Your task to perform on an android device: What's the weather going to be this weekend? Image 0: 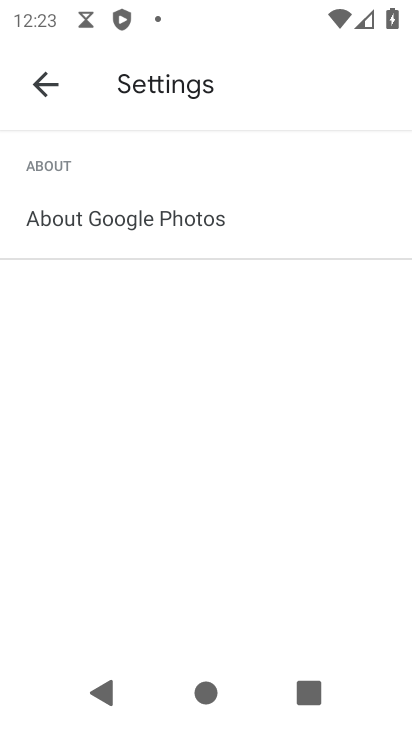
Step 0: press home button
Your task to perform on an android device: What's the weather going to be this weekend? Image 1: 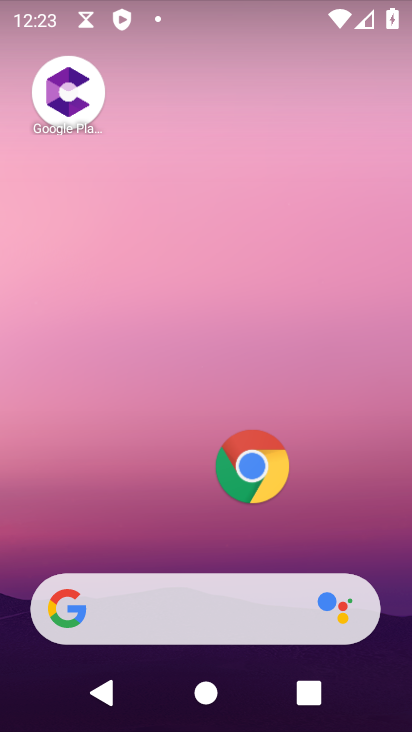
Step 1: drag from (194, 339) to (198, 55)
Your task to perform on an android device: What's the weather going to be this weekend? Image 2: 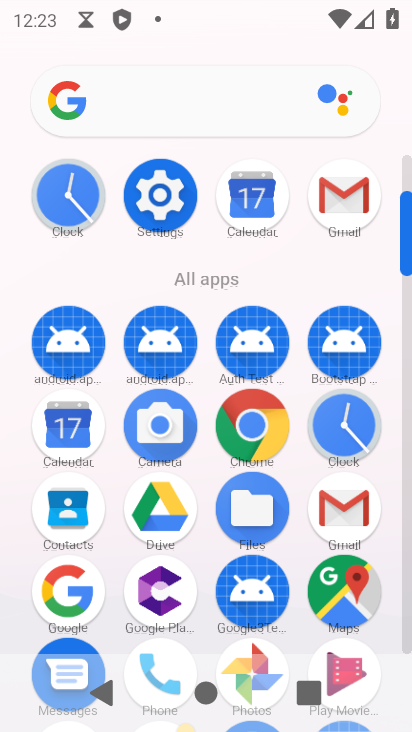
Step 2: click (49, 599)
Your task to perform on an android device: What's the weather going to be this weekend? Image 3: 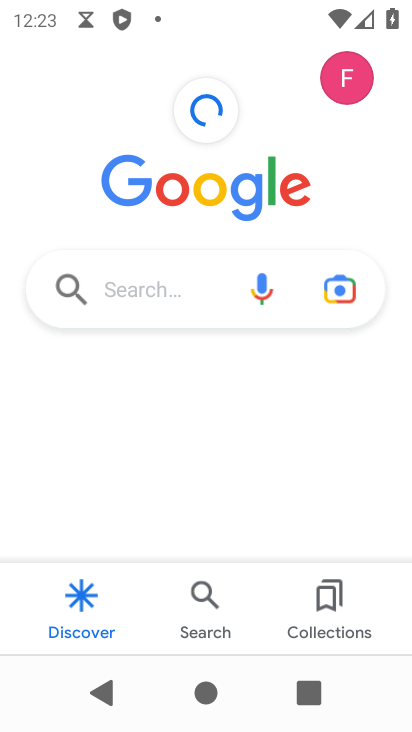
Step 3: click (132, 295)
Your task to perform on an android device: What's the weather going to be this weekend? Image 4: 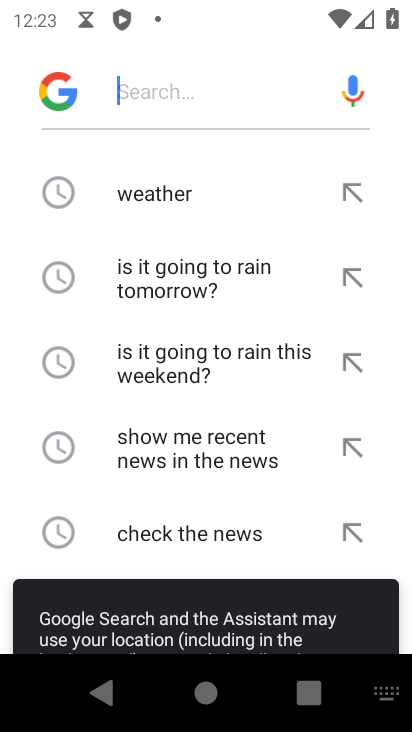
Step 4: click (161, 194)
Your task to perform on an android device: What's the weather going to be this weekend? Image 5: 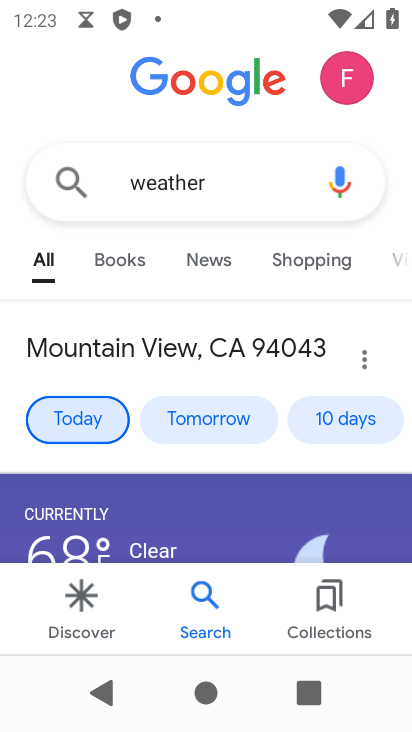
Step 5: click (351, 419)
Your task to perform on an android device: What's the weather going to be this weekend? Image 6: 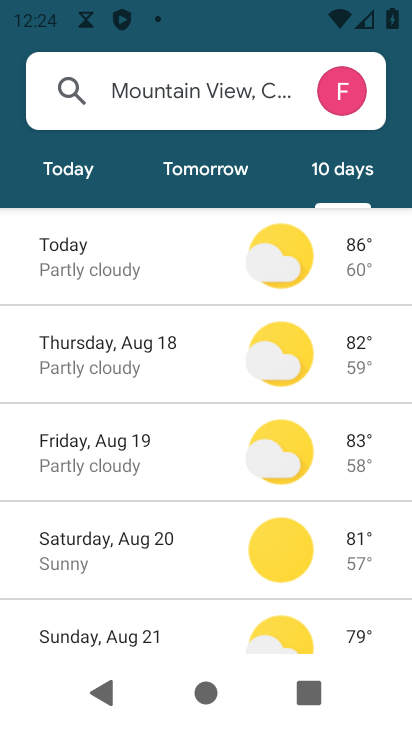
Step 6: task complete